Your task to perform on an android device: Go to privacy settings Image 0: 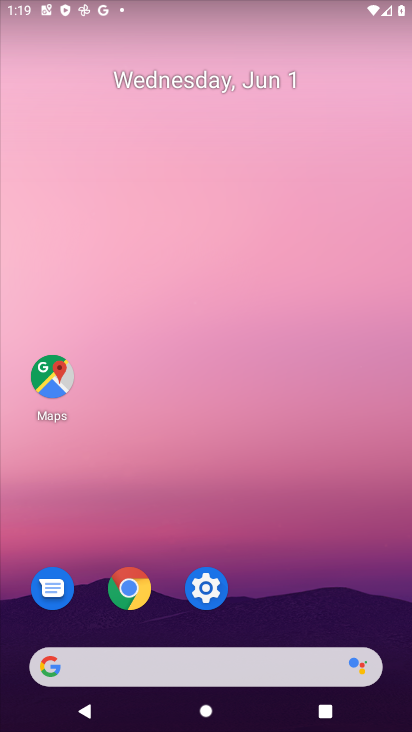
Step 0: drag from (234, 687) to (149, 5)
Your task to perform on an android device: Go to privacy settings Image 1: 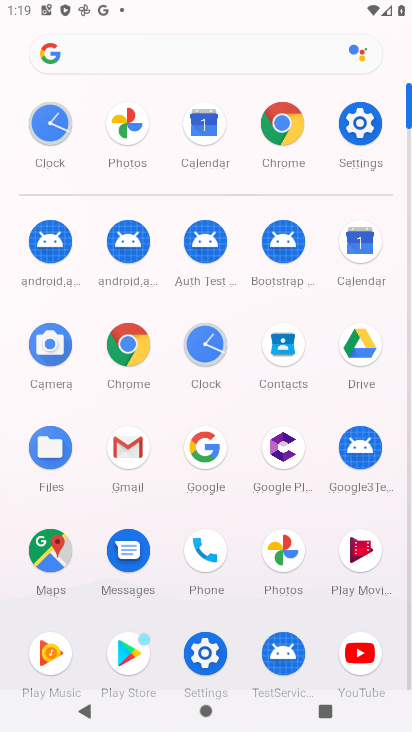
Step 1: click (258, 144)
Your task to perform on an android device: Go to privacy settings Image 2: 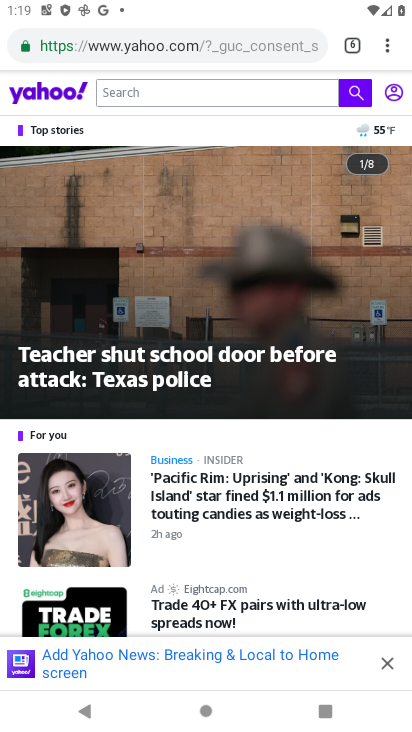
Step 2: click (387, 55)
Your task to perform on an android device: Go to privacy settings Image 3: 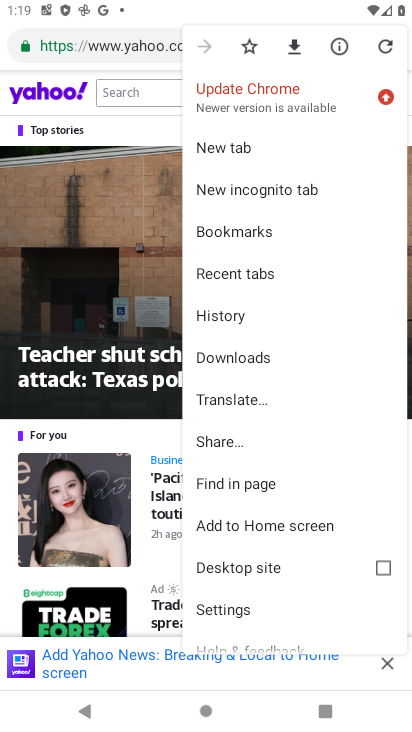
Step 3: drag from (231, 551) to (229, 459)
Your task to perform on an android device: Go to privacy settings Image 4: 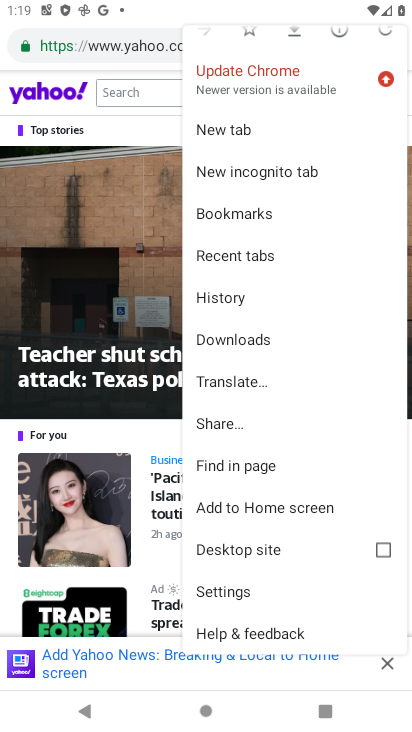
Step 4: click (224, 587)
Your task to perform on an android device: Go to privacy settings Image 5: 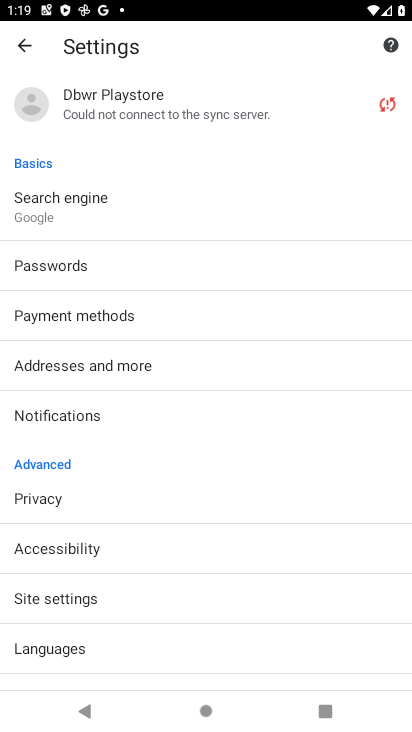
Step 5: click (48, 501)
Your task to perform on an android device: Go to privacy settings Image 6: 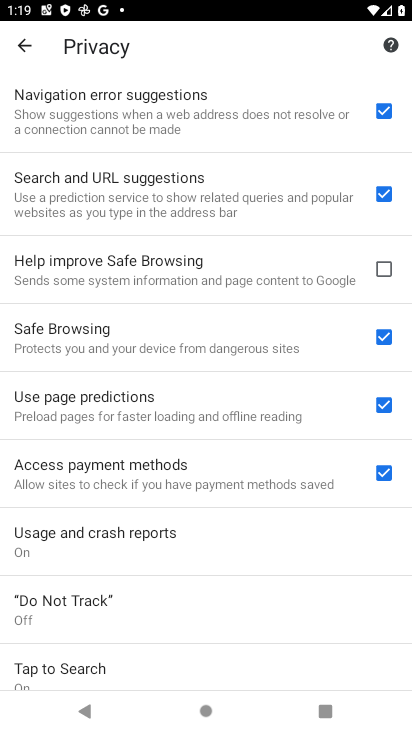
Step 6: task complete